Your task to perform on an android device: turn pop-ups on in chrome Image 0: 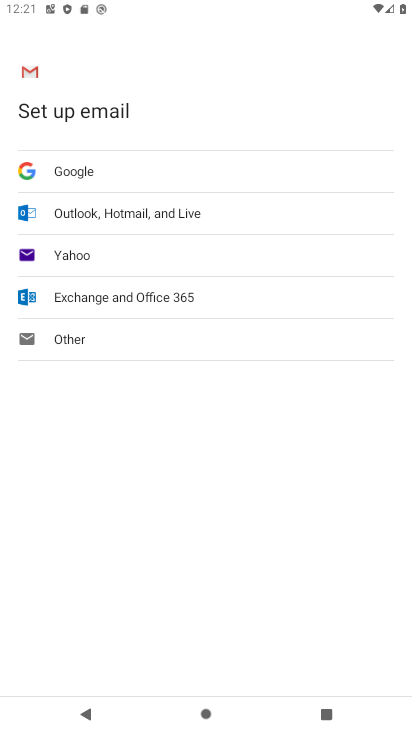
Step 0: press home button
Your task to perform on an android device: turn pop-ups on in chrome Image 1: 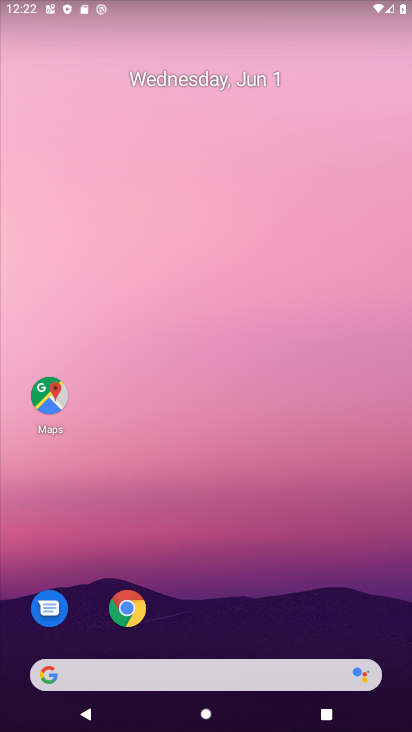
Step 1: click (137, 610)
Your task to perform on an android device: turn pop-ups on in chrome Image 2: 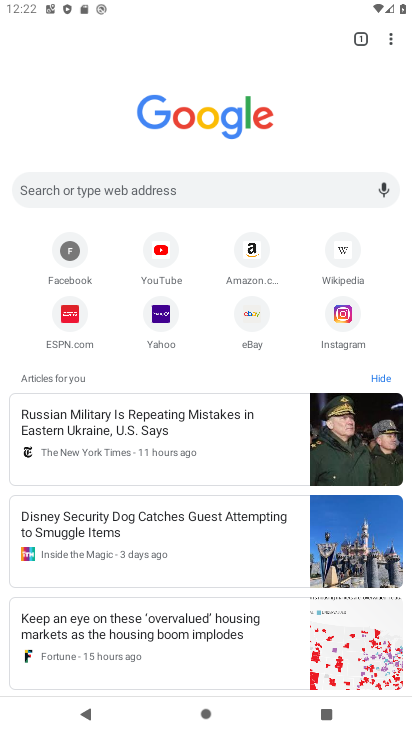
Step 2: click (390, 31)
Your task to perform on an android device: turn pop-ups on in chrome Image 3: 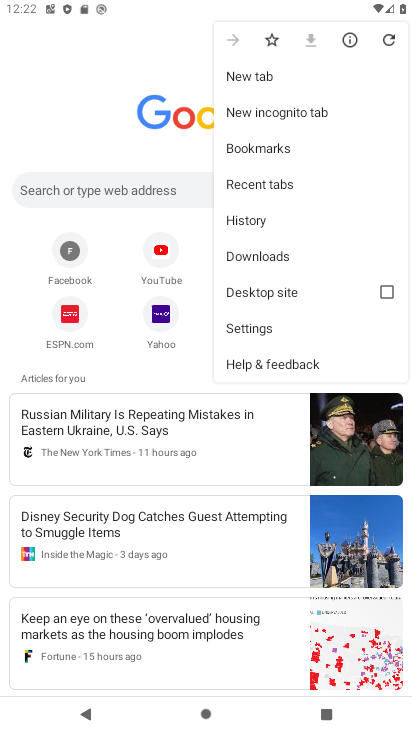
Step 3: click (265, 327)
Your task to perform on an android device: turn pop-ups on in chrome Image 4: 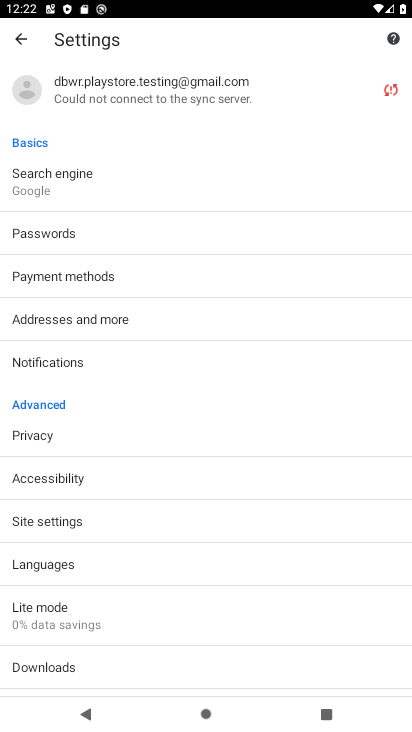
Step 4: click (64, 526)
Your task to perform on an android device: turn pop-ups on in chrome Image 5: 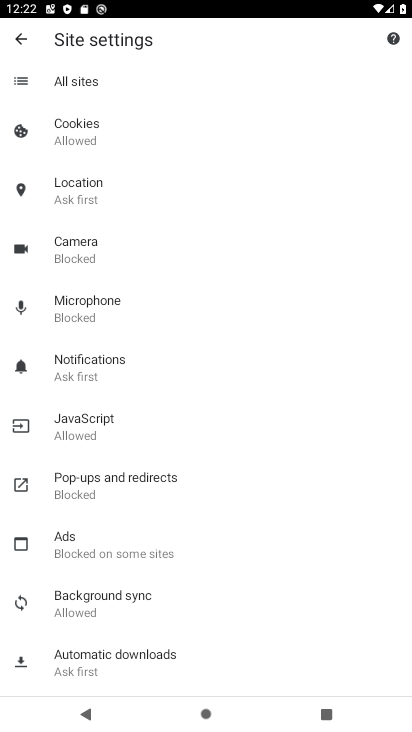
Step 5: click (73, 479)
Your task to perform on an android device: turn pop-ups on in chrome Image 6: 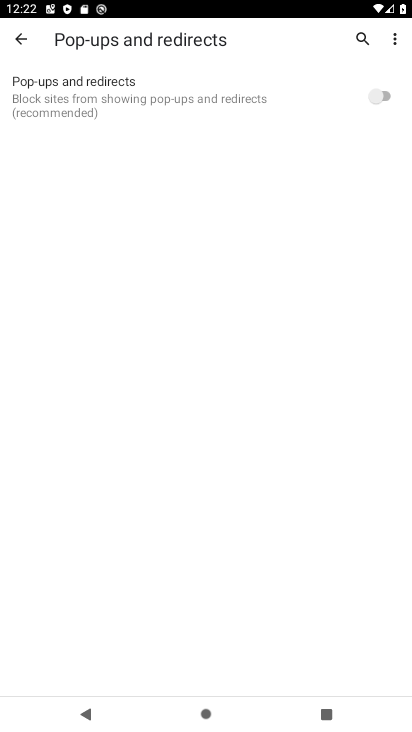
Step 6: click (387, 94)
Your task to perform on an android device: turn pop-ups on in chrome Image 7: 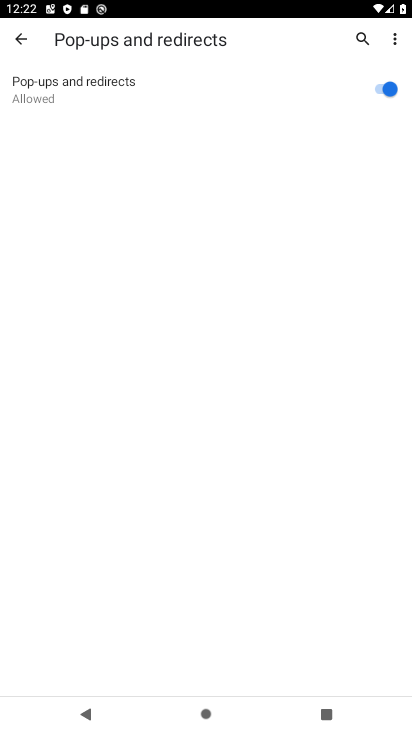
Step 7: task complete